Your task to perform on an android device: Go to settings Image 0: 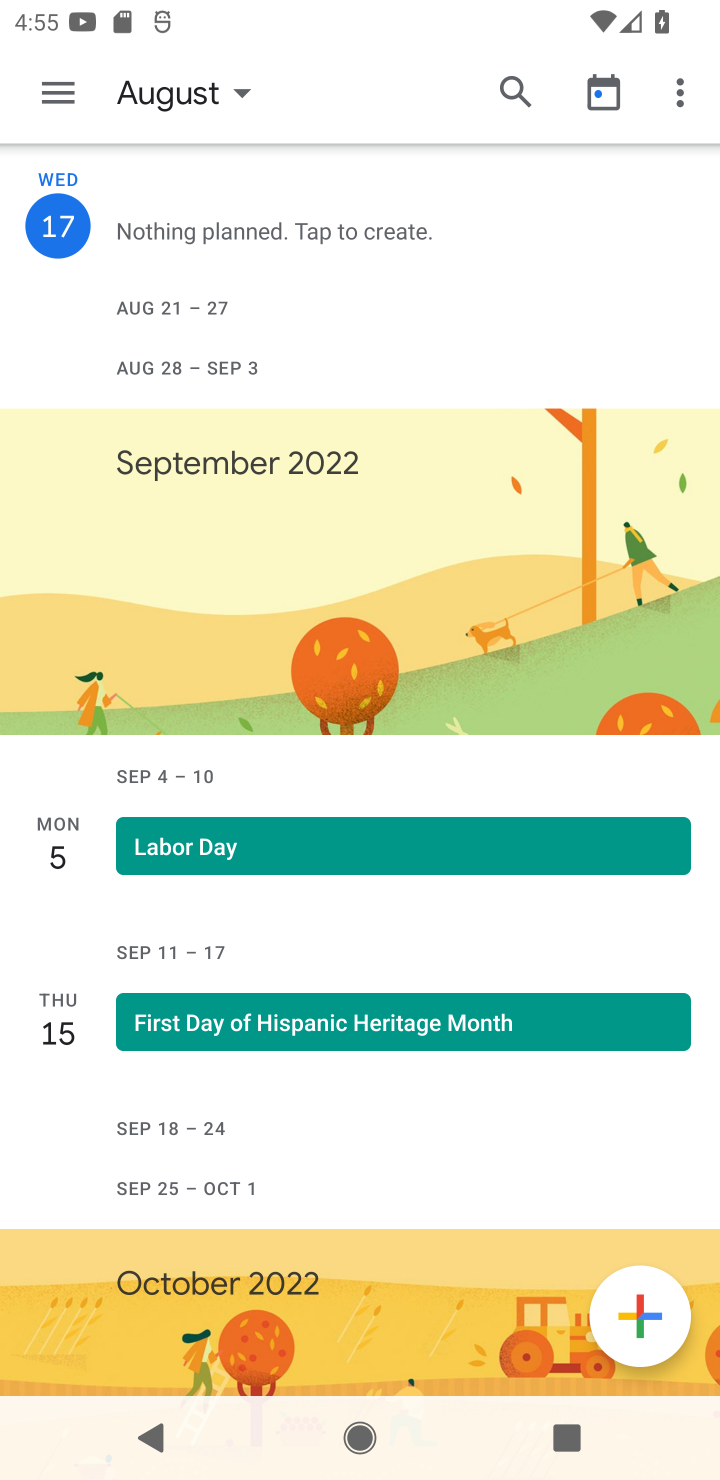
Step 0: press home button
Your task to perform on an android device: Go to settings Image 1: 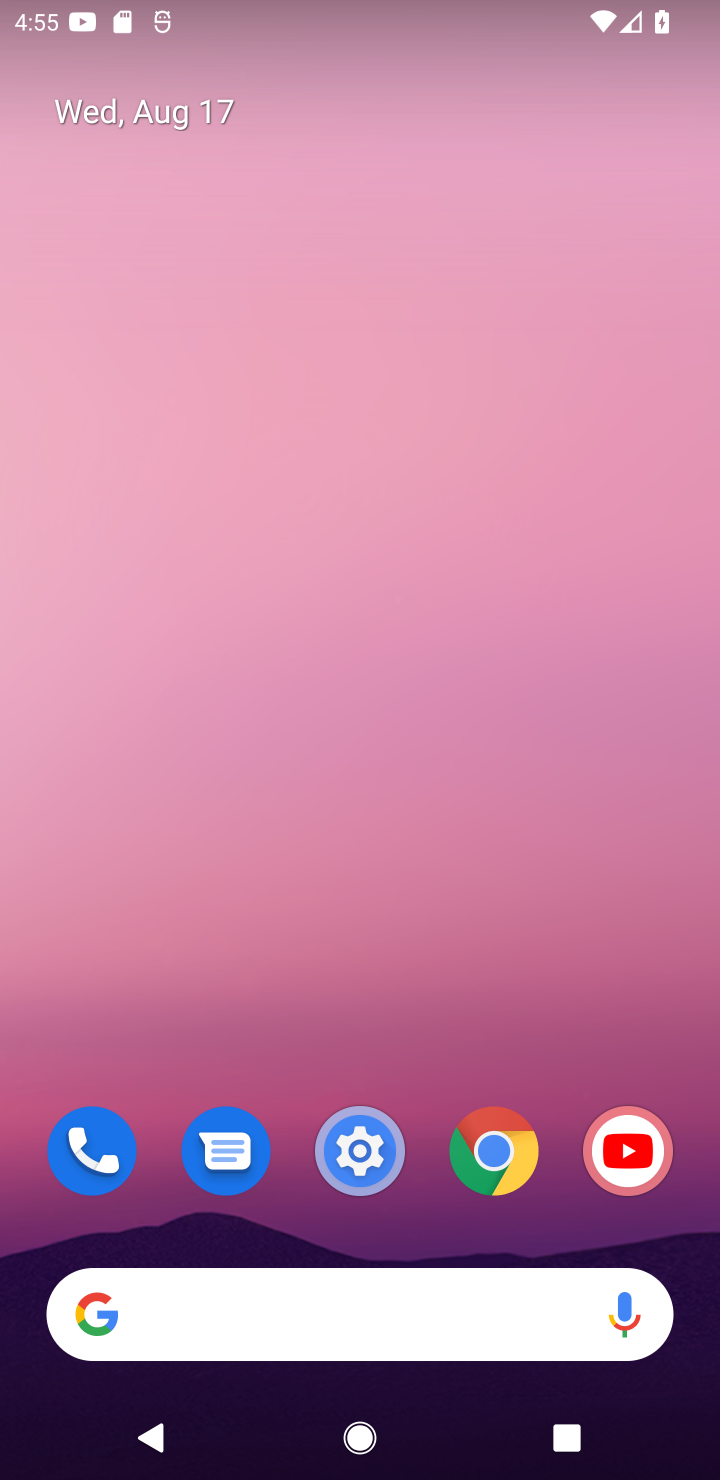
Step 1: click (360, 1126)
Your task to perform on an android device: Go to settings Image 2: 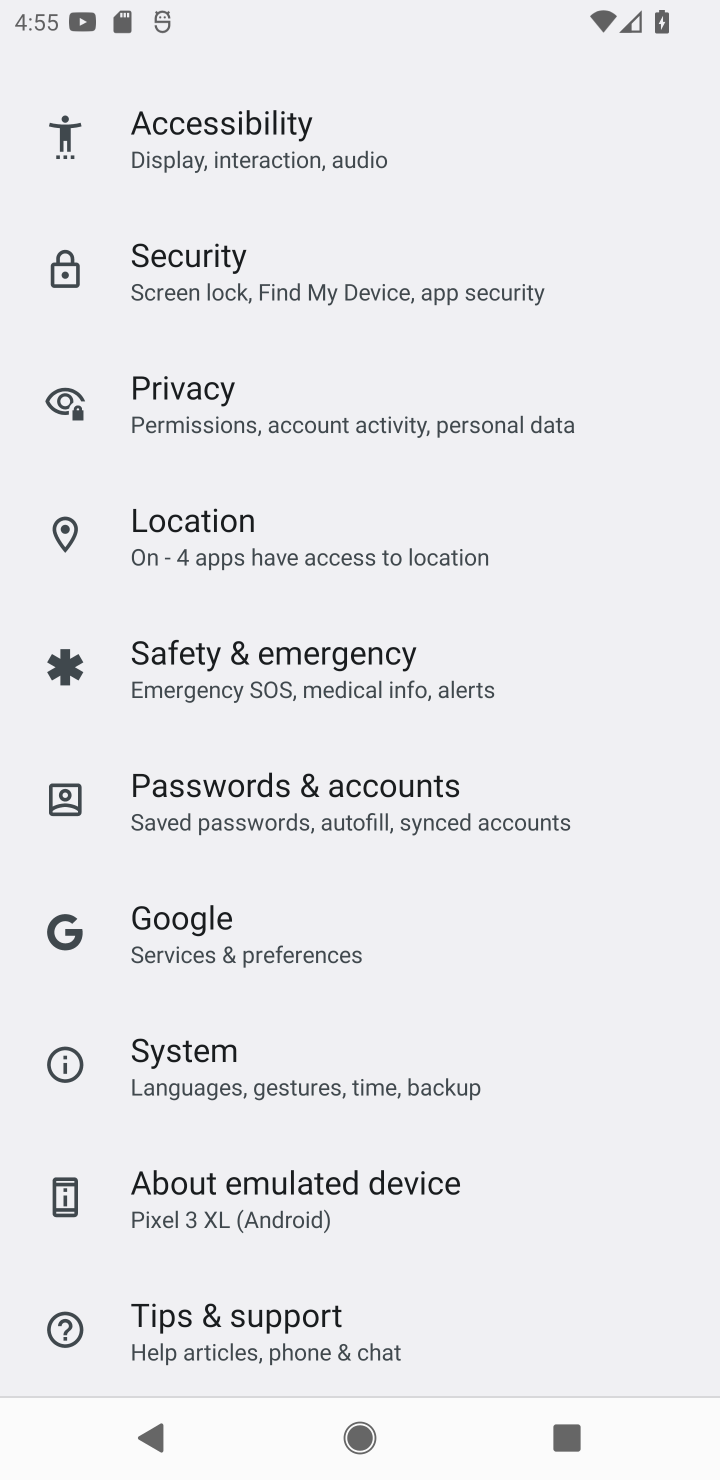
Step 2: task complete